Your task to perform on an android device: Search for seafood restaurants on Google Maps Image 0: 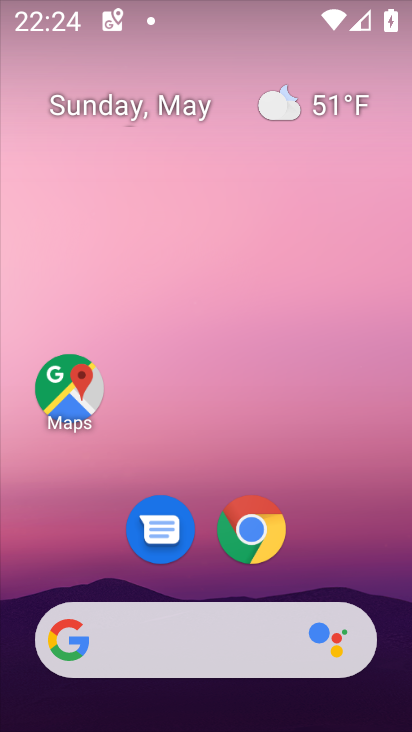
Step 0: drag from (345, 593) to (342, 60)
Your task to perform on an android device: Search for seafood restaurants on Google Maps Image 1: 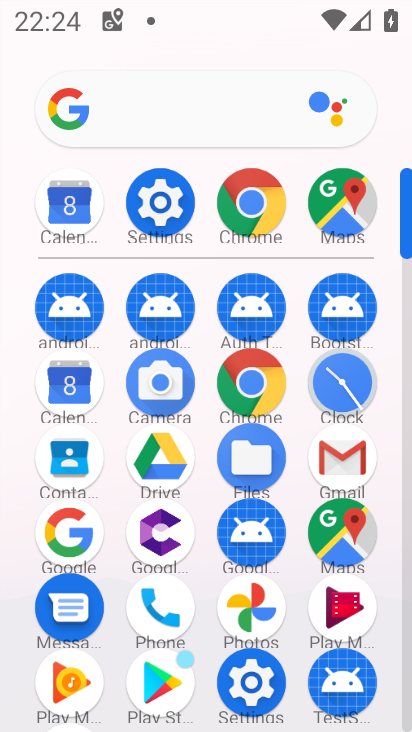
Step 1: click (340, 549)
Your task to perform on an android device: Search for seafood restaurants on Google Maps Image 2: 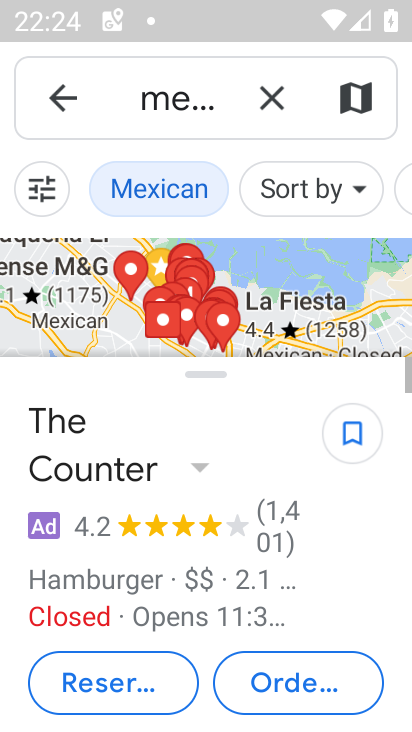
Step 2: click (274, 104)
Your task to perform on an android device: Search for seafood restaurants on Google Maps Image 3: 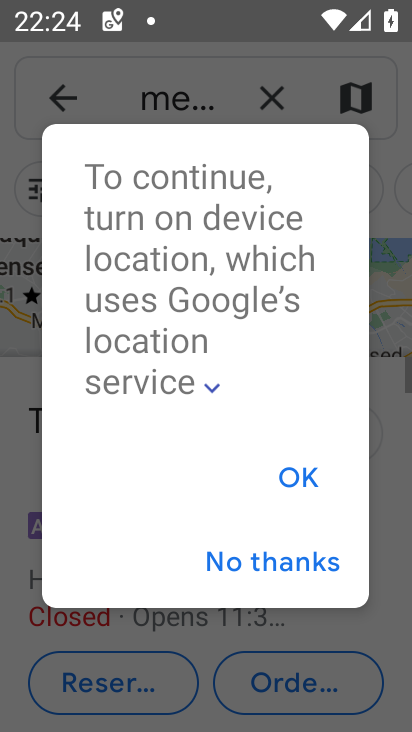
Step 3: drag from (303, 482) to (217, 482)
Your task to perform on an android device: Search for seafood restaurants on Google Maps Image 4: 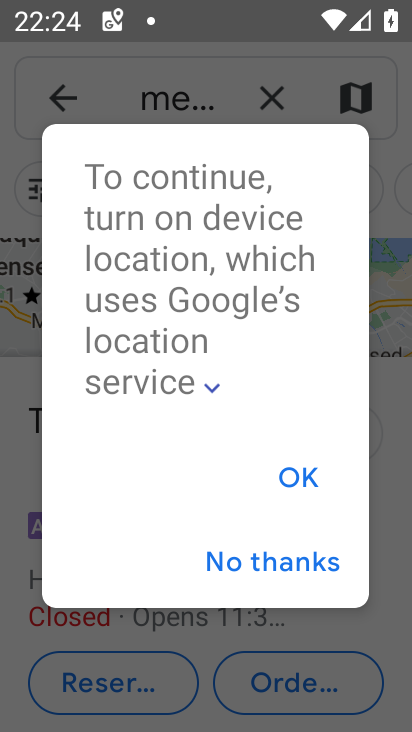
Step 4: click (279, 563)
Your task to perform on an android device: Search for seafood restaurants on Google Maps Image 5: 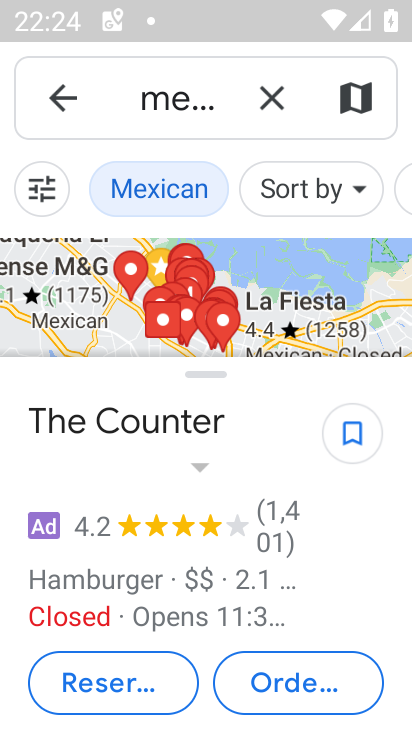
Step 5: click (259, 99)
Your task to perform on an android device: Search for seafood restaurants on Google Maps Image 6: 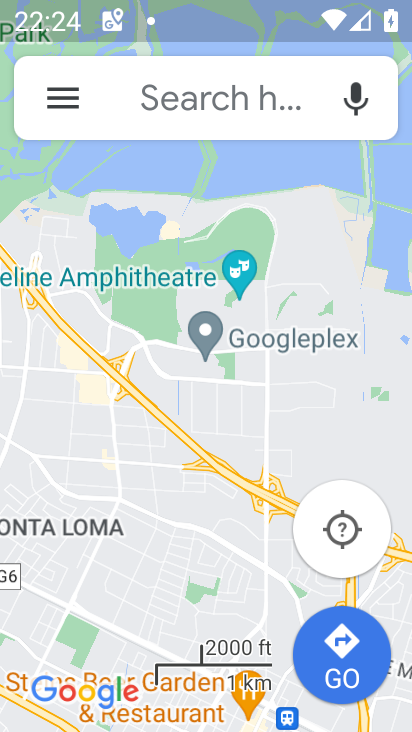
Step 6: click (317, 111)
Your task to perform on an android device: Search for seafood restaurants on Google Maps Image 7: 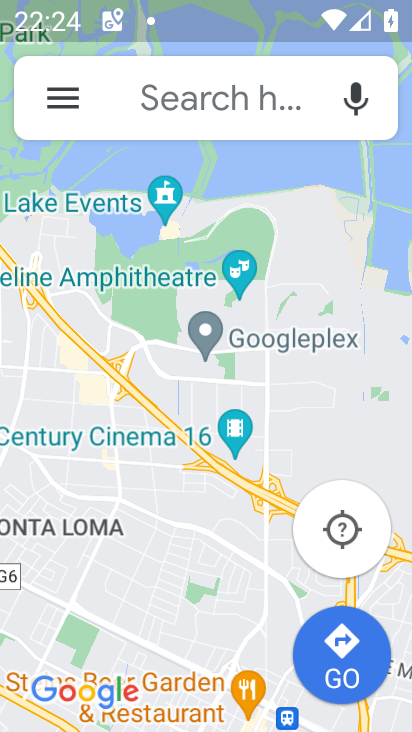
Step 7: click (243, 123)
Your task to perform on an android device: Search for seafood restaurants on Google Maps Image 8: 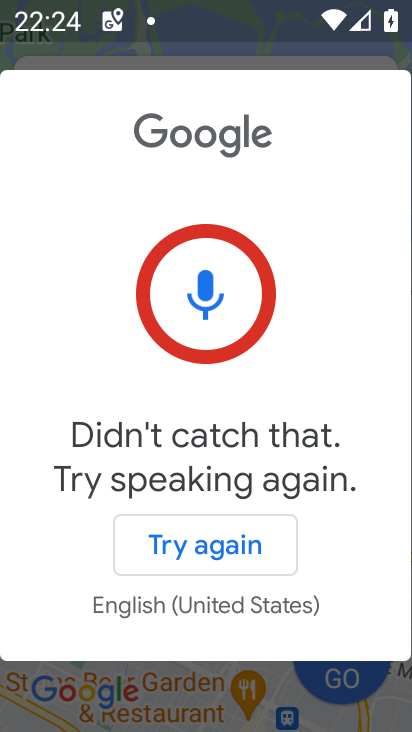
Step 8: click (236, 561)
Your task to perform on an android device: Search for seafood restaurants on Google Maps Image 9: 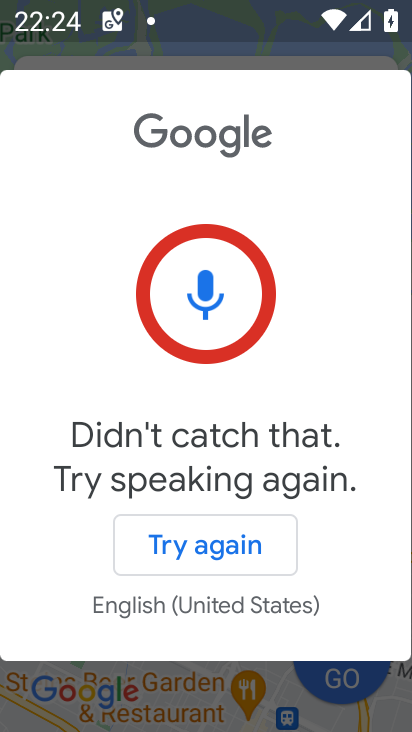
Step 9: press back button
Your task to perform on an android device: Search for seafood restaurants on Google Maps Image 10: 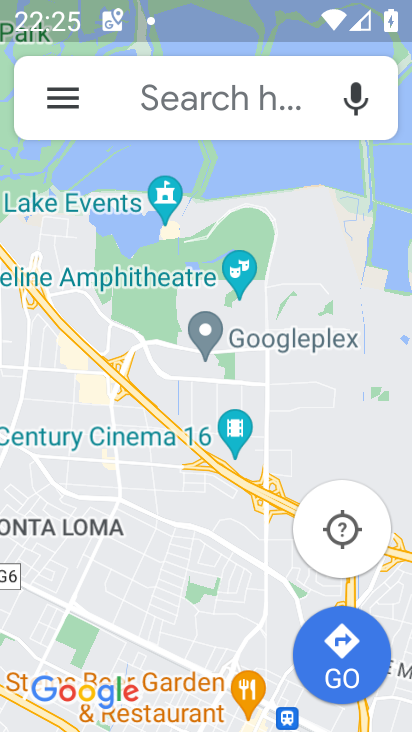
Step 10: click (226, 96)
Your task to perform on an android device: Search for seafood restaurants on Google Maps Image 11: 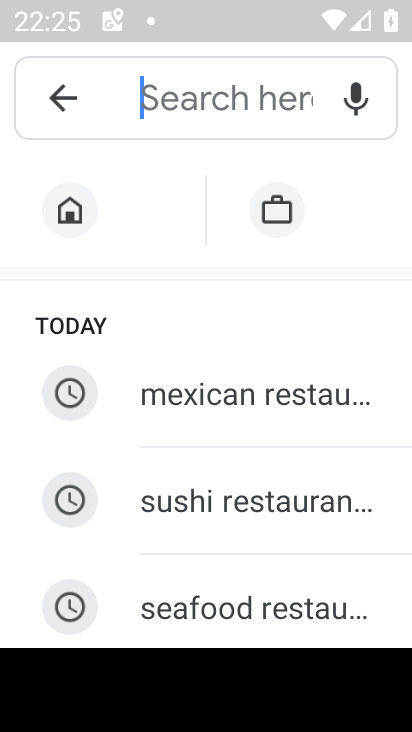
Step 11: click (306, 623)
Your task to perform on an android device: Search for seafood restaurants on Google Maps Image 12: 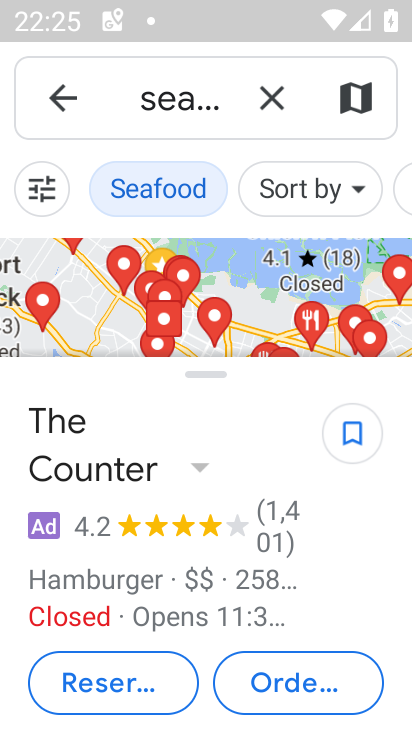
Step 12: task complete